Your task to perform on an android device: Find coffee shops on Maps Image 0: 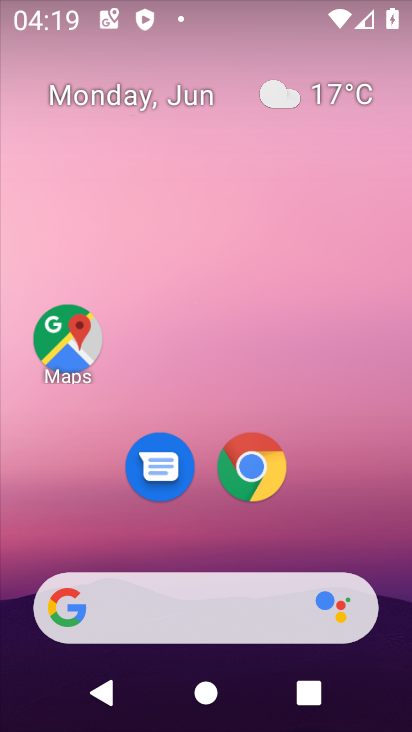
Step 0: click (82, 354)
Your task to perform on an android device: Find coffee shops on Maps Image 1: 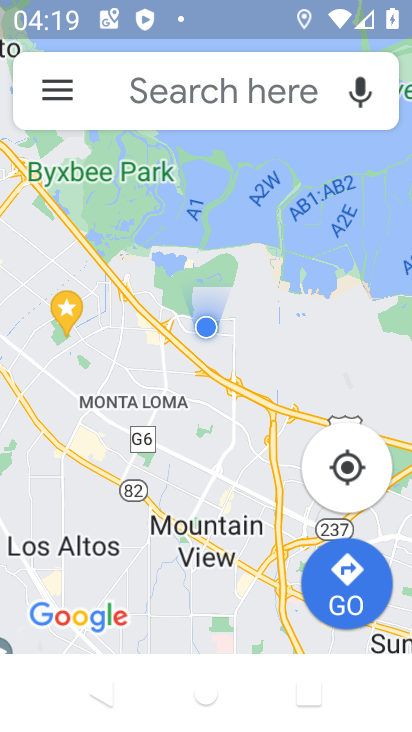
Step 1: click (183, 76)
Your task to perform on an android device: Find coffee shops on Maps Image 2: 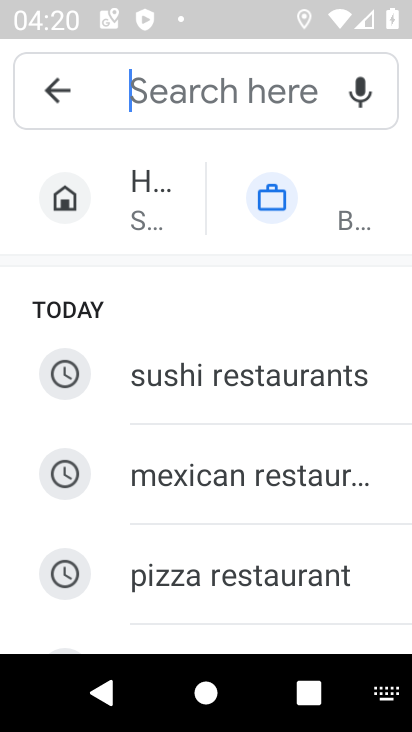
Step 2: type "coffee shops"
Your task to perform on an android device: Find coffee shops on Maps Image 3: 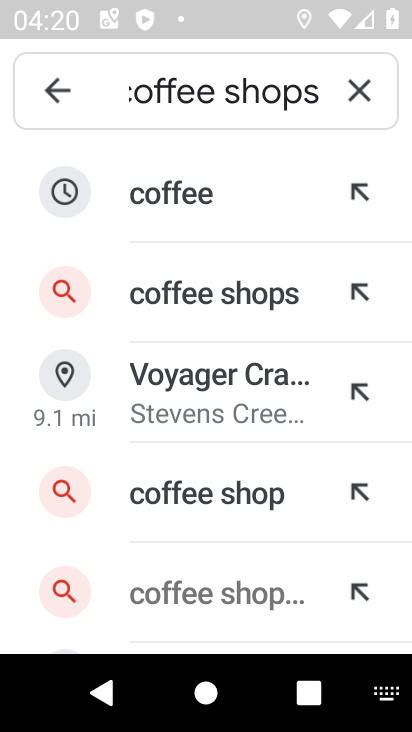
Step 3: click (203, 279)
Your task to perform on an android device: Find coffee shops on Maps Image 4: 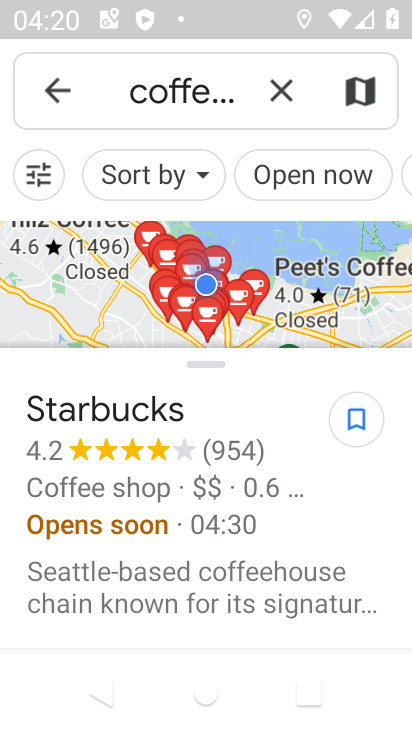
Step 4: task complete